Your task to perform on an android device: toggle improve location accuracy Image 0: 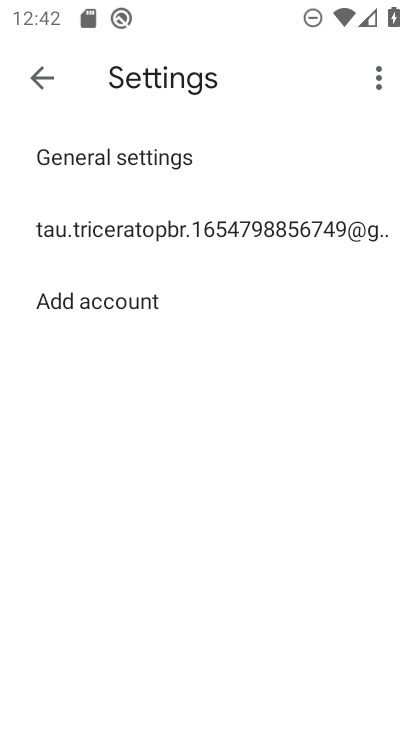
Step 0: press home button
Your task to perform on an android device: toggle improve location accuracy Image 1: 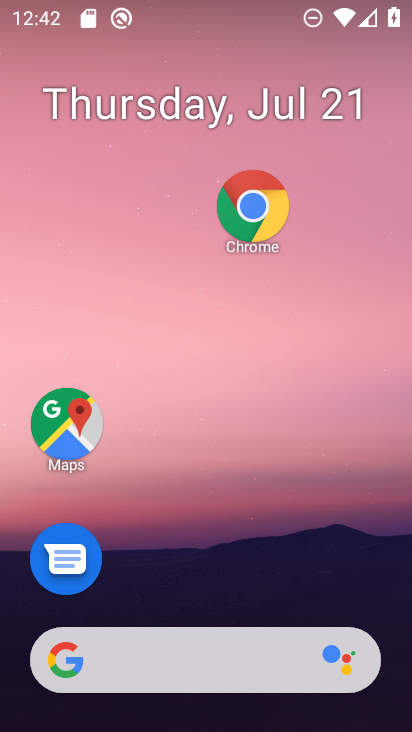
Step 1: drag from (143, 668) to (159, 182)
Your task to perform on an android device: toggle improve location accuracy Image 2: 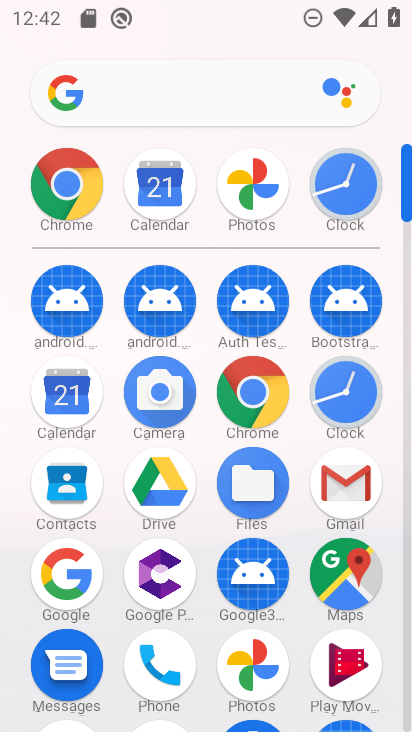
Step 2: drag from (193, 574) to (169, 181)
Your task to perform on an android device: toggle improve location accuracy Image 3: 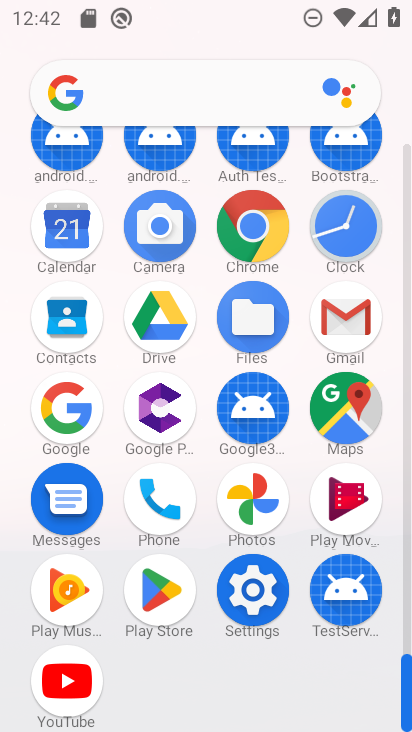
Step 3: click (249, 612)
Your task to perform on an android device: toggle improve location accuracy Image 4: 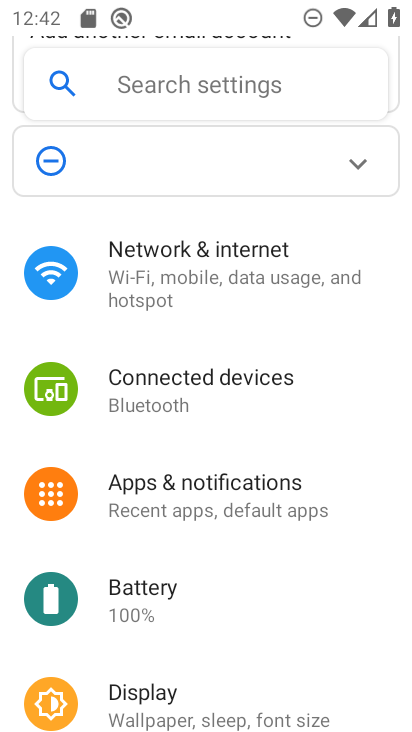
Step 4: drag from (221, 609) to (206, 318)
Your task to perform on an android device: toggle improve location accuracy Image 5: 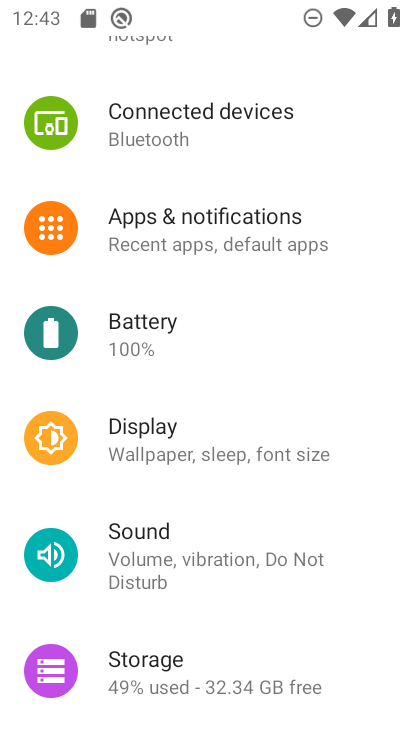
Step 5: drag from (190, 571) to (212, 224)
Your task to perform on an android device: toggle improve location accuracy Image 6: 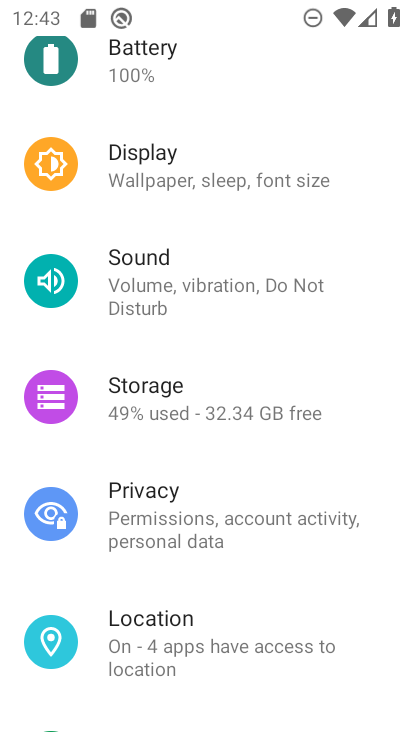
Step 6: click (218, 642)
Your task to perform on an android device: toggle improve location accuracy Image 7: 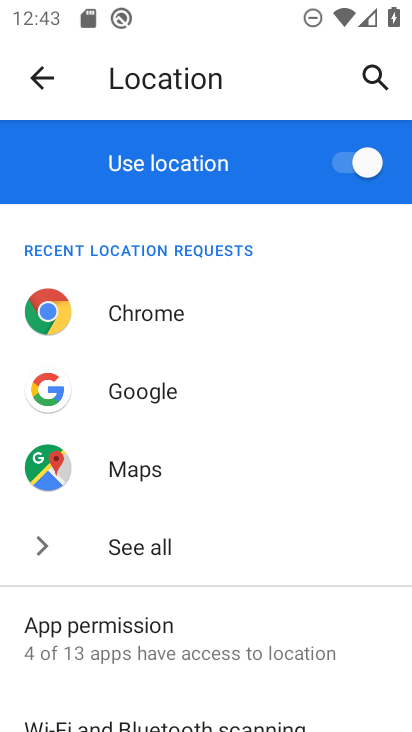
Step 7: drag from (217, 594) to (217, 247)
Your task to perform on an android device: toggle improve location accuracy Image 8: 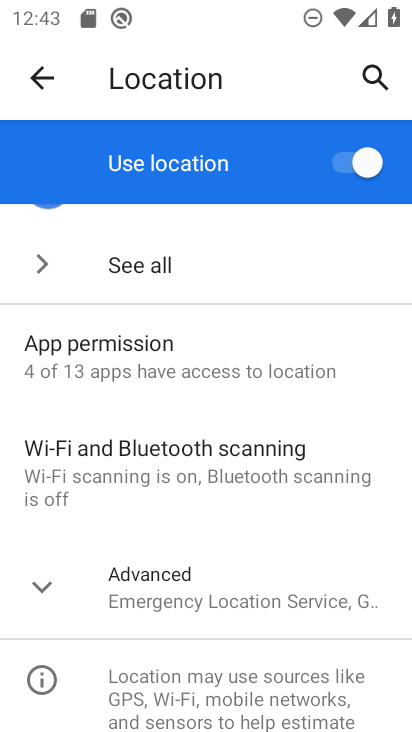
Step 8: click (271, 587)
Your task to perform on an android device: toggle improve location accuracy Image 9: 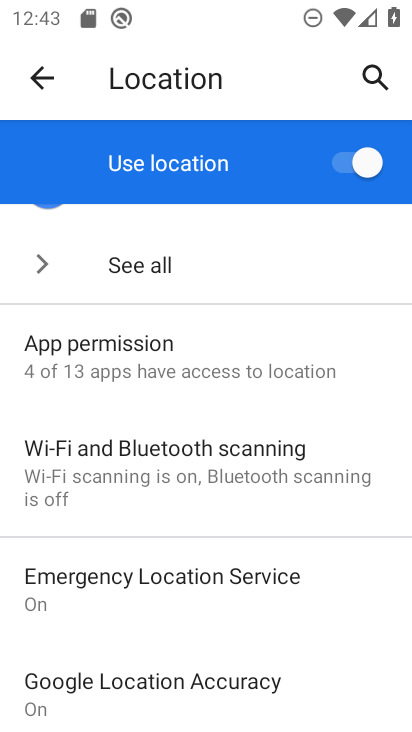
Step 9: click (274, 681)
Your task to perform on an android device: toggle improve location accuracy Image 10: 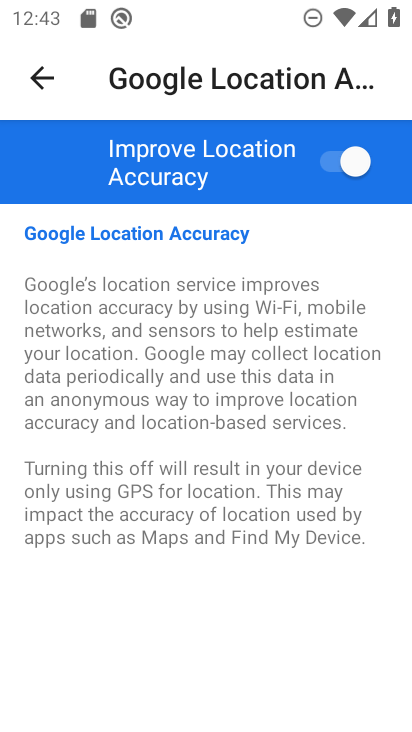
Step 10: click (326, 167)
Your task to perform on an android device: toggle improve location accuracy Image 11: 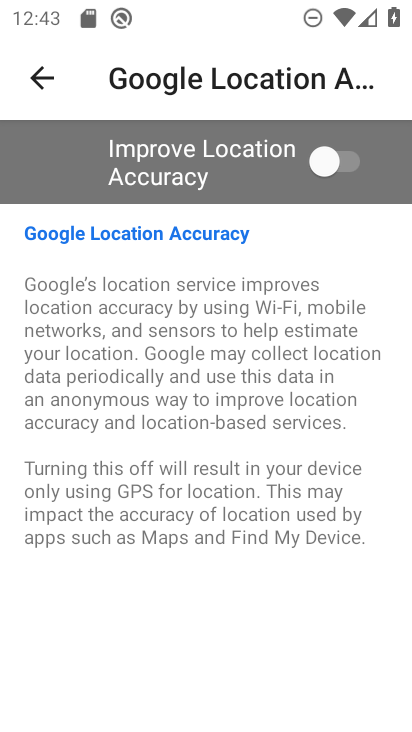
Step 11: task complete